Your task to perform on an android device: make emails show in primary in the gmail app Image 0: 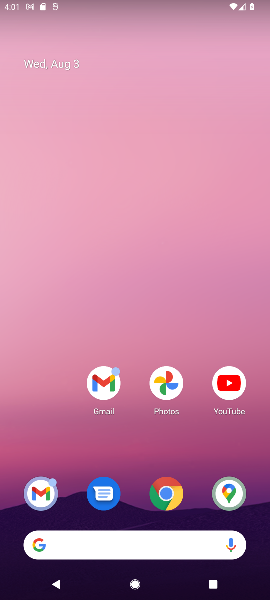
Step 0: drag from (45, 422) to (51, 168)
Your task to perform on an android device: make emails show in primary in the gmail app Image 1: 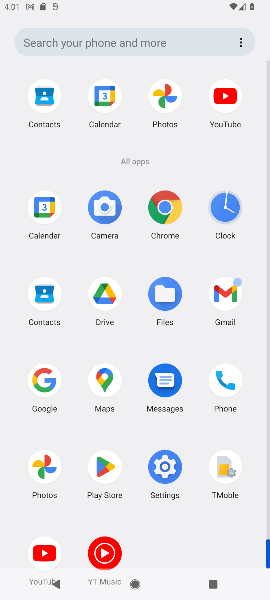
Step 1: click (229, 295)
Your task to perform on an android device: make emails show in primary in the gmail app Image 2: 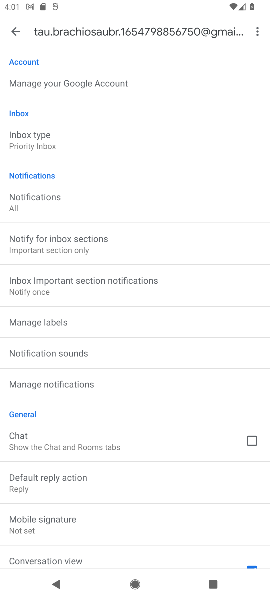
Step 2: drag from (181, 462) to (183, 309)
Your task to perform on an android device: make emails show in primary in the gmail app Image 3: 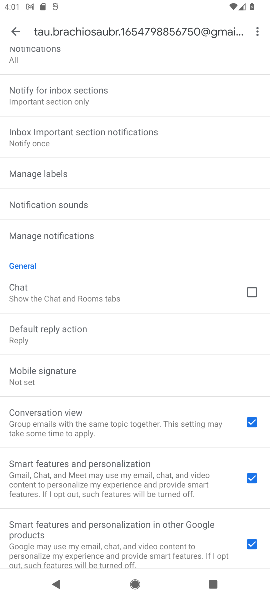
Step 3: drag from (165, 457) to (165, 295)
Your task to perform on an android device: make emails show in primary in the gmail app Image 4: 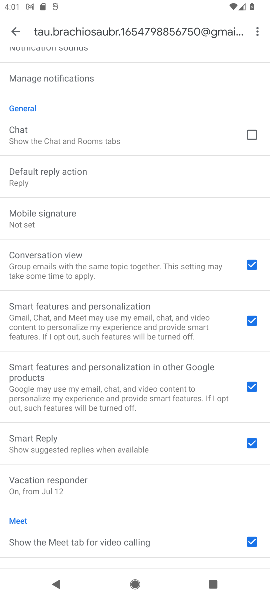
Step 4: drag from (162, 391) to (163, 314)
Your task to perform on an android device: make emails show in primary in the gmail app Image 5: 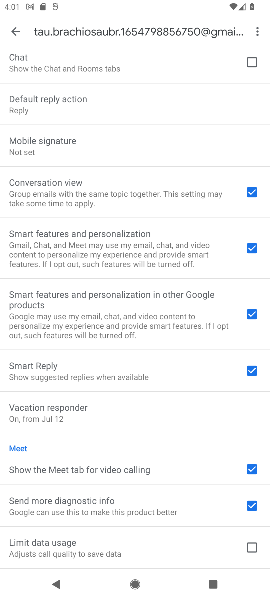
Step 5: drag from (162, 420) to (175, 292)
Your task to perform on an android device: make emails show in primary in the gmail app Image 6: 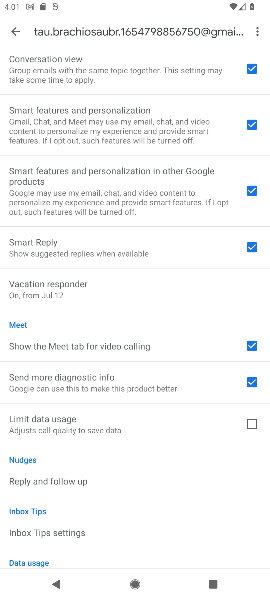
Step 6: drag from (173, 467) to (184, 320)
Your task to perform on an android device: make emails show in primary in the gmail app Image 7: 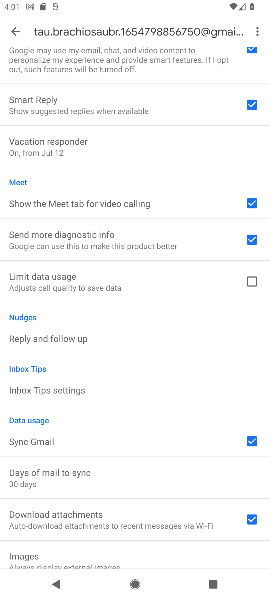
Step 7: drag from (188, 211) to (190, 407)
Your task to perform on an android device: make emails show in primary in the gmail app Image 8: 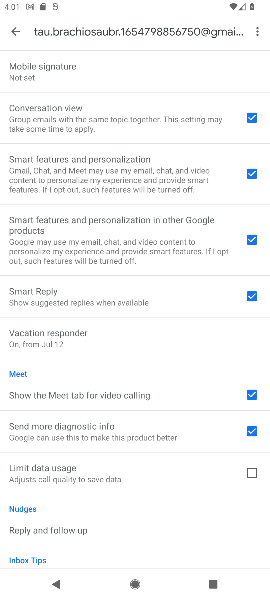
Step 8: drag from (183, 176) to (187, 339)
Your task to perform on an android device: make emails show in primary in the gmail app Image 9: 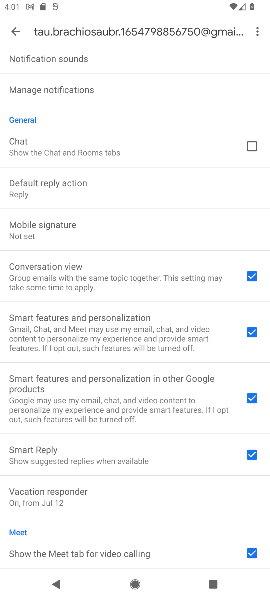
Step 9: drag from (177, 147) to (174, 350)
Your task to perform on an android device: make emails show in primary in the gmail app Image 10: 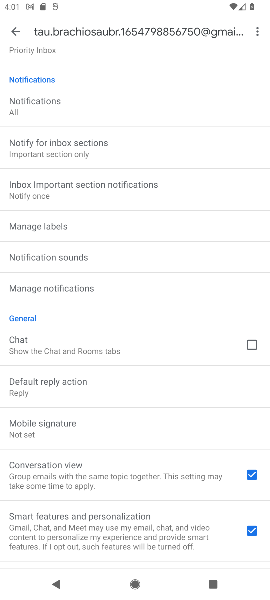
Step 10: drag from (177, 119) to (188, 336)
Your task to perform on an android device: make emails show in primary in the gmail app Image 11: 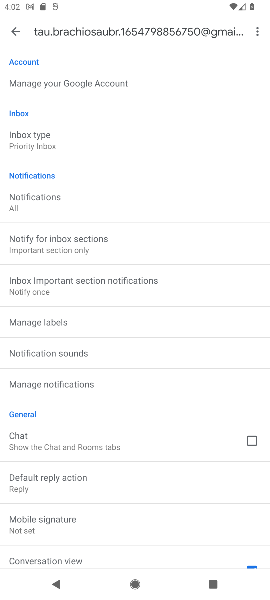
Step 11: click (38, 138)
Your task to perform on an android device: make emails show in primary in the gmail app Image 12: 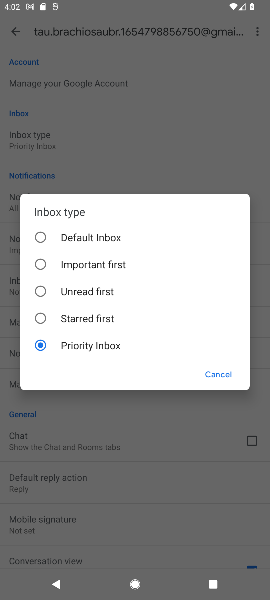
Step 12: click (79, 233)
Your task to perform on an android device: make emails show in primary in the gmail app Image 13: 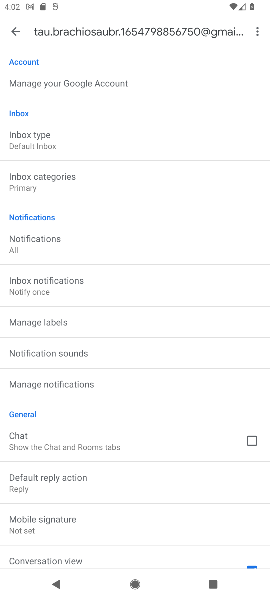
Step 13: click (59, 181)
Your task to perform on an android device: make emails show in primary in the gmail app Image 14: 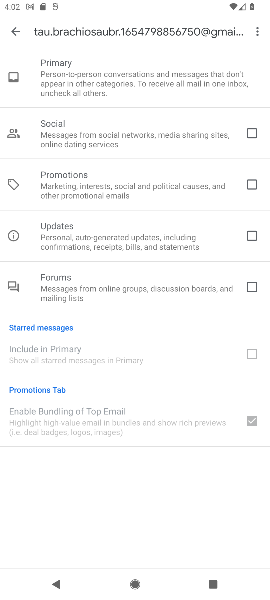
Step 14: task complete